Your task to perform on an android device: Go to display settings Image 0: 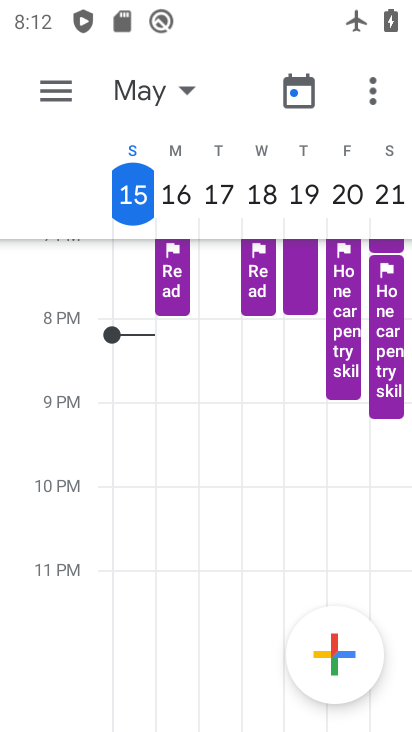
Step 0: press home button
Your task to perform on an android device: Go to display settings Image 1: 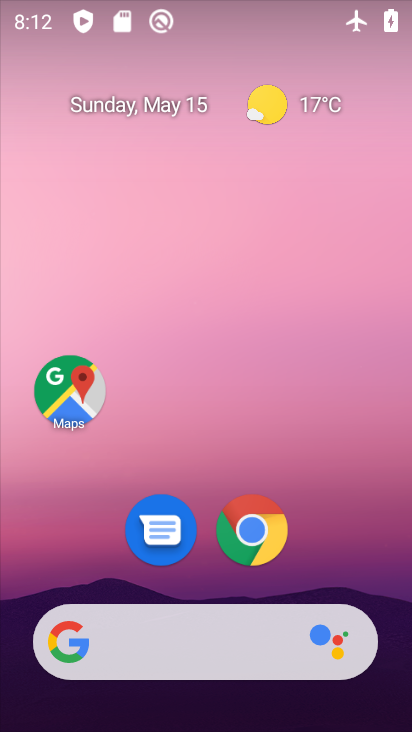
Step 1: drag from (210, 708) to (210, 145)
Your task to perform on an android device: Go to display settings Image 2: 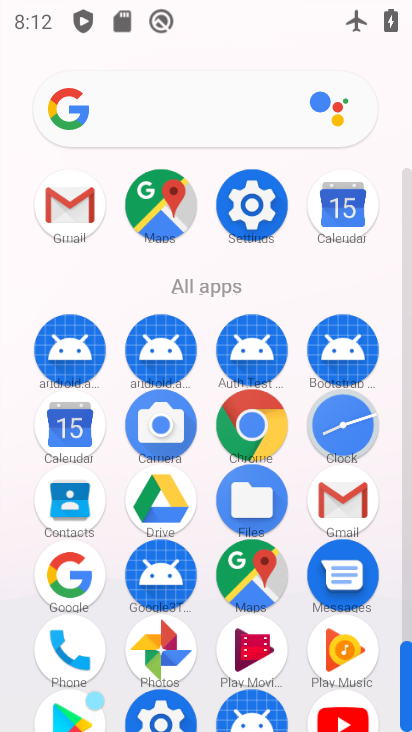
Step 2: click (256, 208)
Your task to perform on an android device: Go to display settings Image 3: 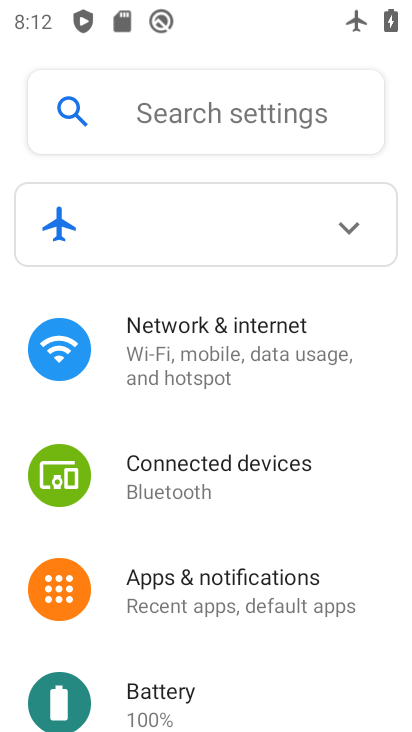
Step 3: drag from (220, 677) to (226, 236)
Your task to perform on an android device: Go to display settings Image 4: 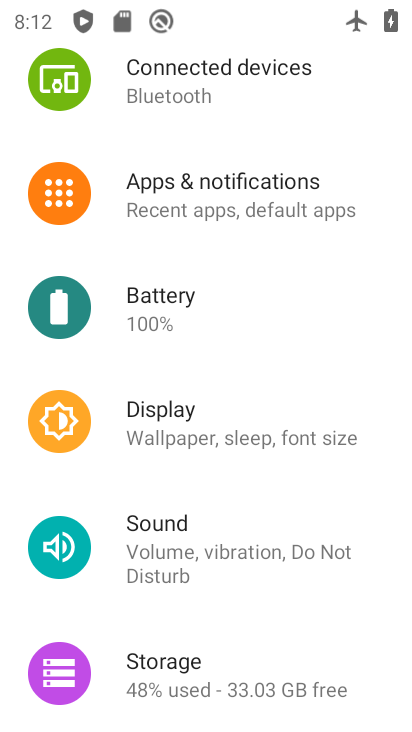
Step 4: click (203, 420)
Your task to perform on an android device: Go to display settings Image 5: 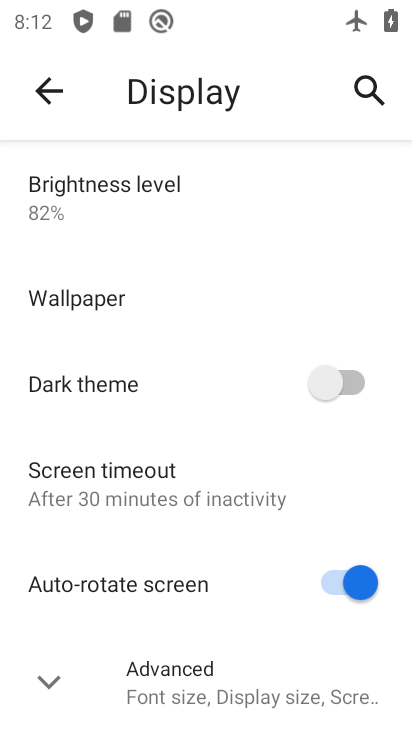
Step 5: task complete